Your task to perform on an android device: refresh tabs in the chrome app Image 0: 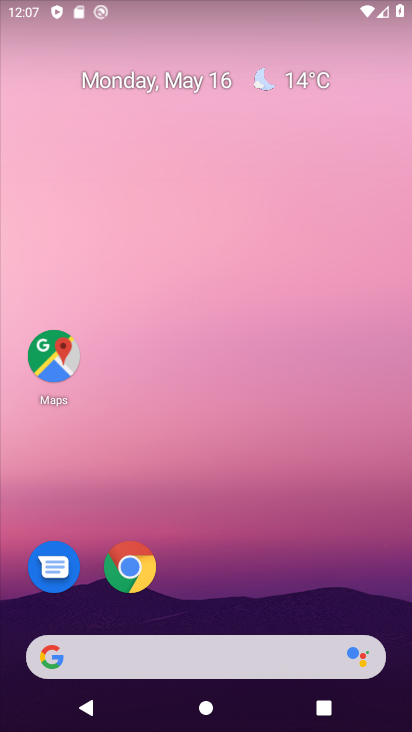
Step 0: click (287, 561)
Your task to perform on an android device: refresh tabs in the chrome app Image 1: 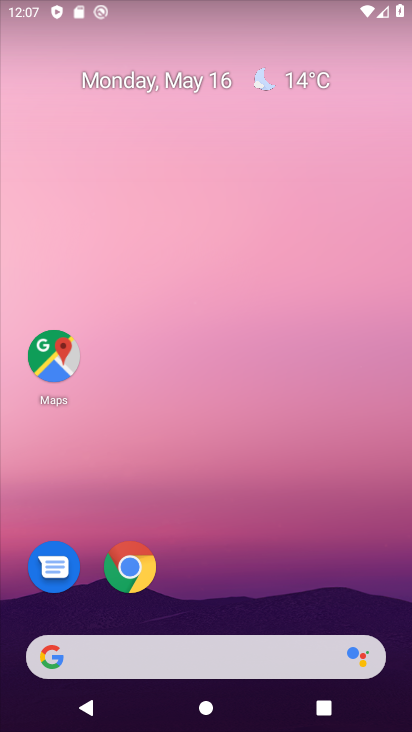
Step 1: click (130, 568)
Your task to perform on an android device: refresh tabs in the chrome app Image 2: 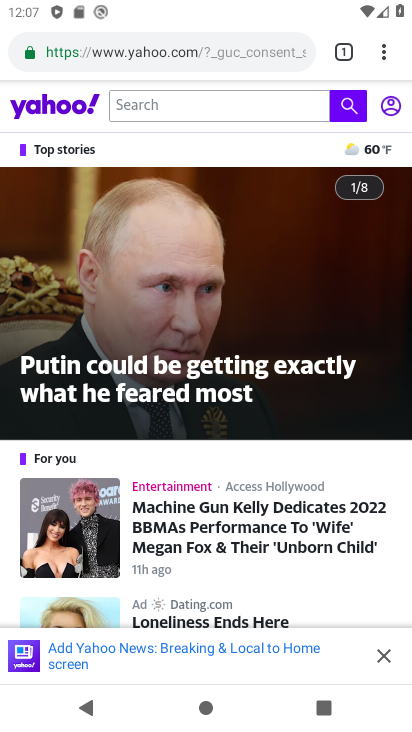
Step 2: click (382, 46)
Your task to perform on an android device: refresh tabs in the chrome app Image 3: 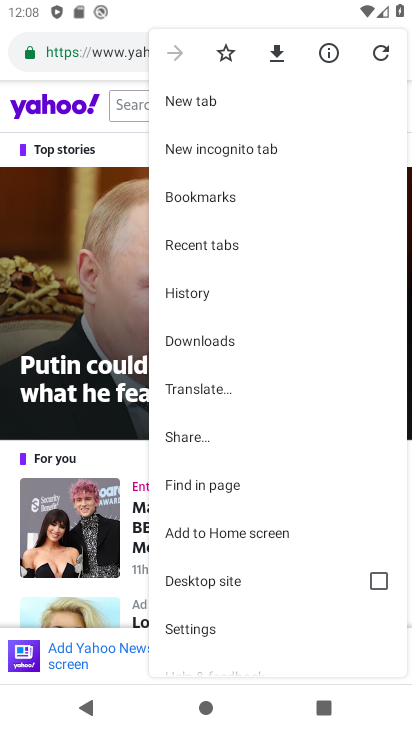
Step 3: click (383, 48)
Your task to perform on an android device: refresh tabs in the chrome app Image 4: 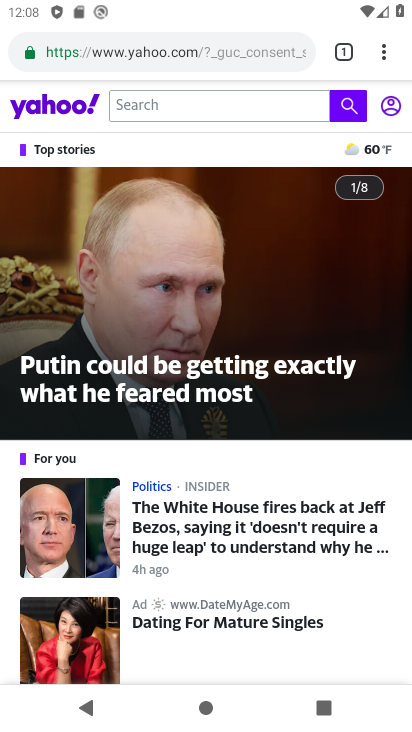
Step 4: task complete